Your task to perform on an android device: Do I have any events this weekend? Image 0: 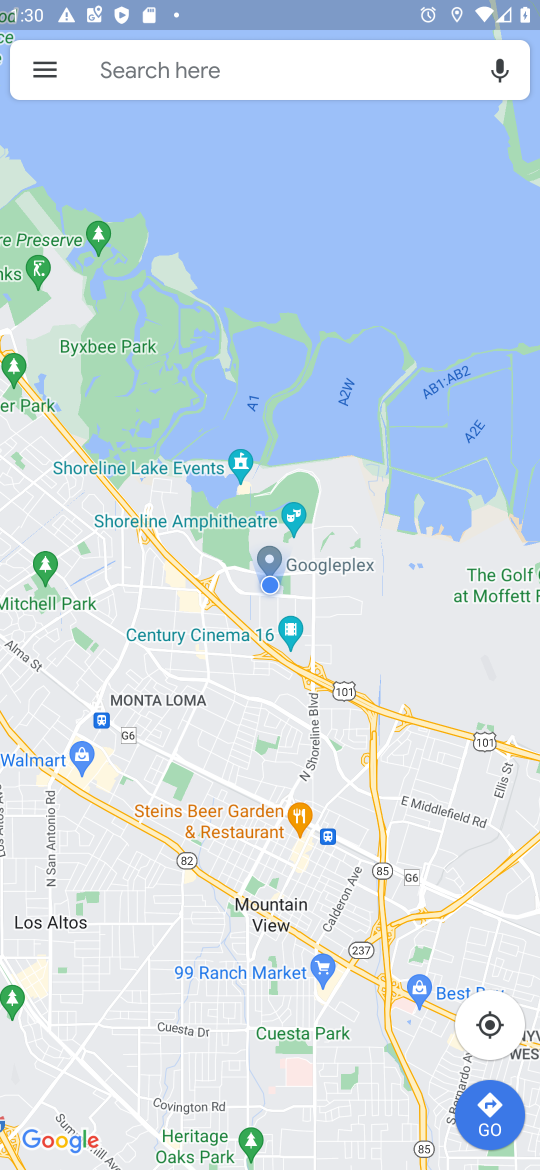
Step 0: press home button
Your task to perform on an android device: Do I have any events this weekend? Image 1: 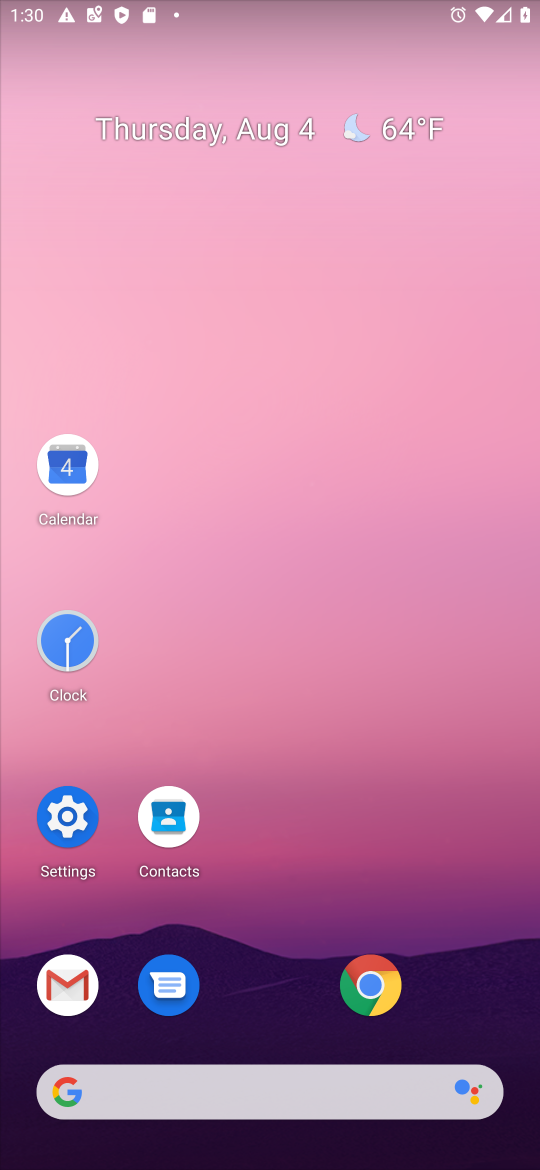
Step 1: drag from (263, 867) to (224, 93)
Your task to perform on an android device: Do I have any events this weekend? Image 2: 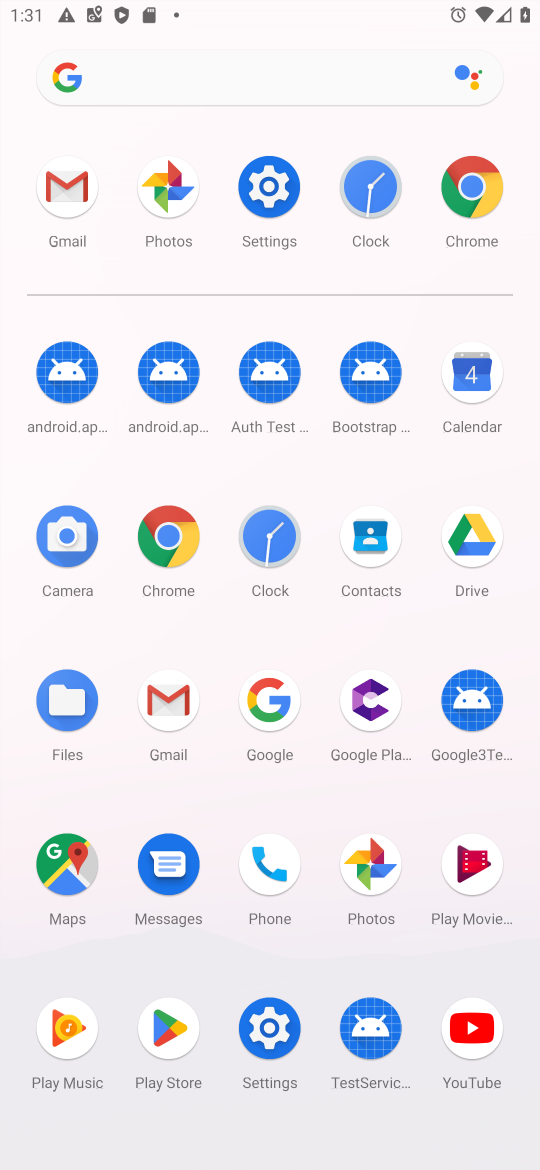
Step 2: click (472, 364)
Your task to perform on an android device: Do I have any events this weekend? Image 3: 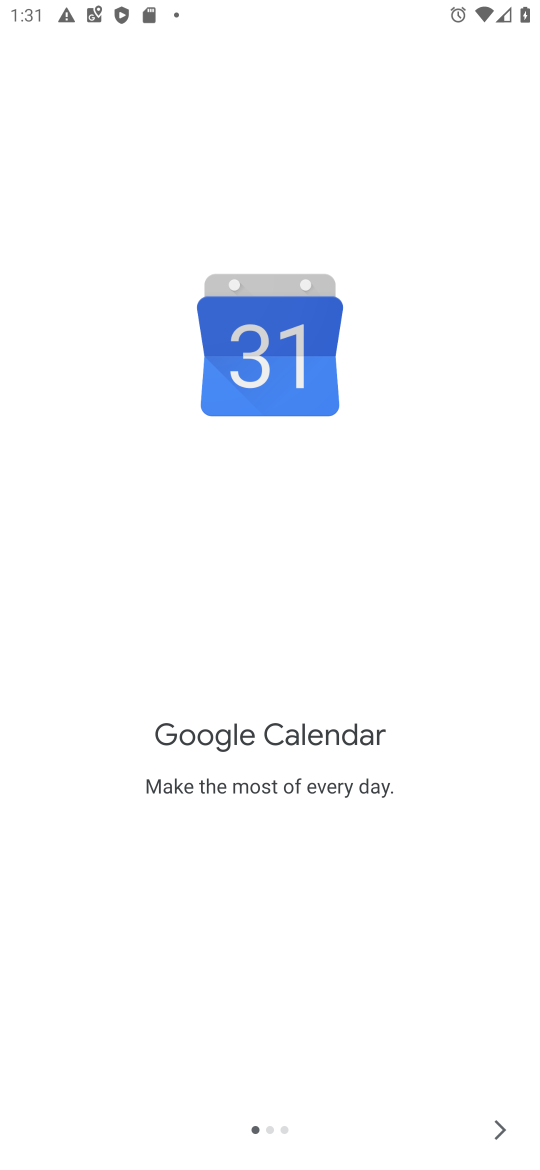
Step 3: click (495, 1134)
Your task to perform on an android device: Do I have any events this weekend? Image 4: 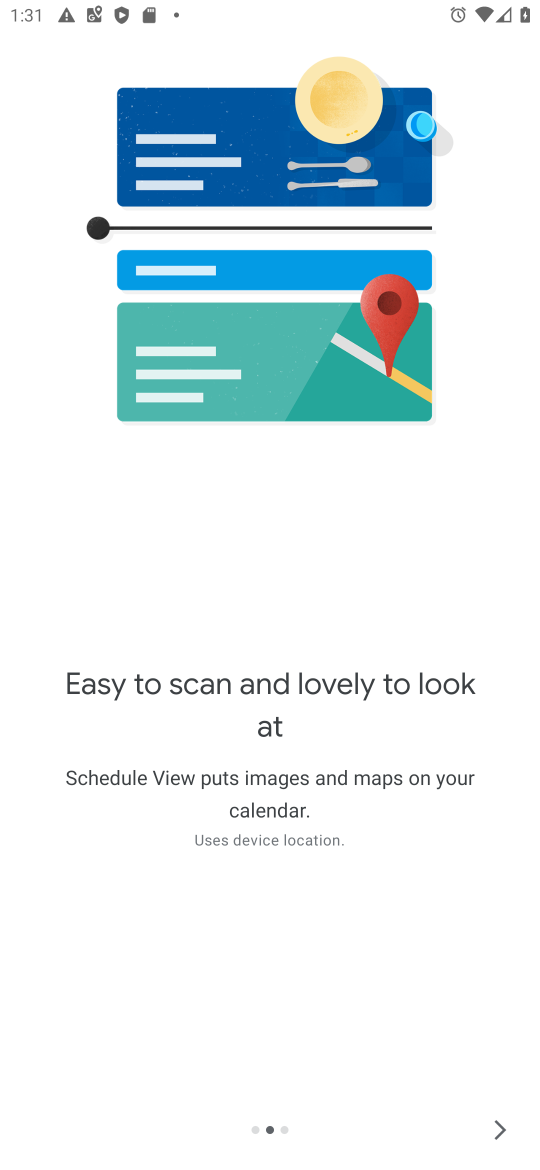
Step 4: click (495, 1134)
Your task to perform on an android device: Do I have any events this weekend? Image 5: 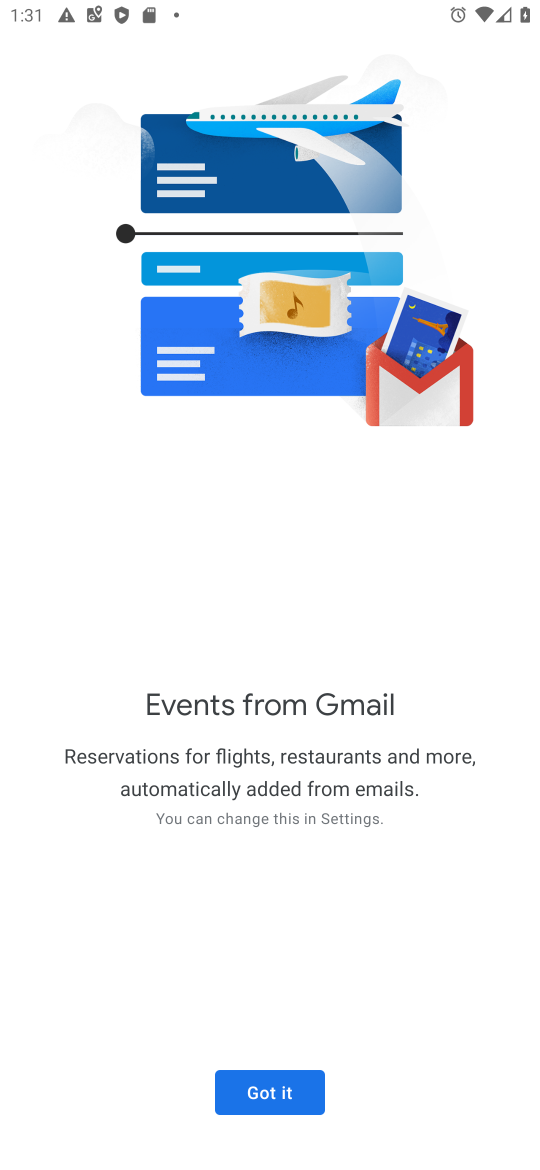
Step 5: click (270, 1095)
Your task to perform on an android device: Do I have any events this weekend? Image 6: 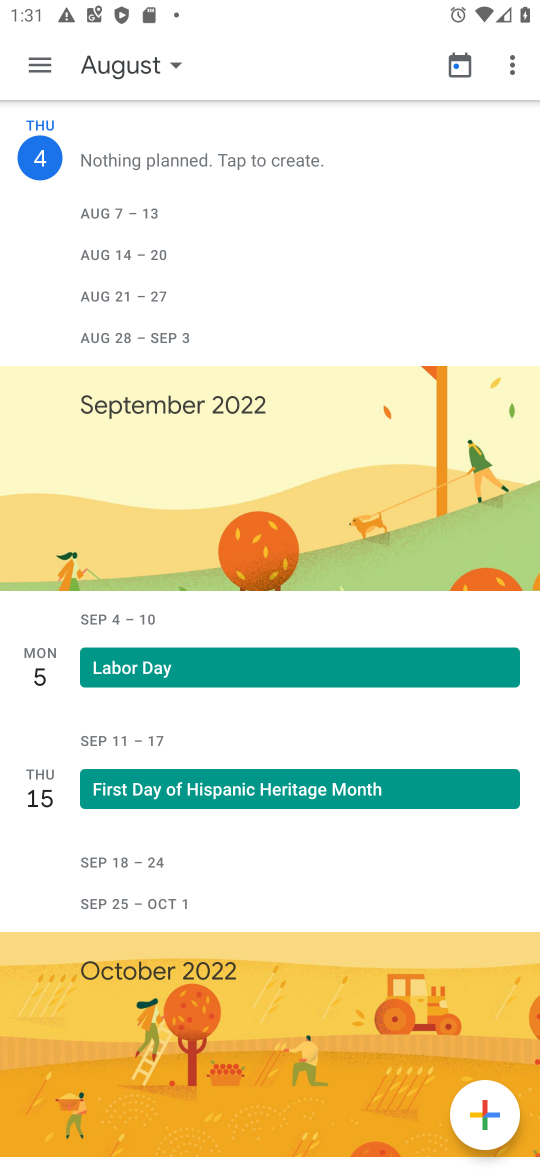
Step 6: click (39, 70)
Your task to perform on an android device: Do I have any events this weekend? Image 7: 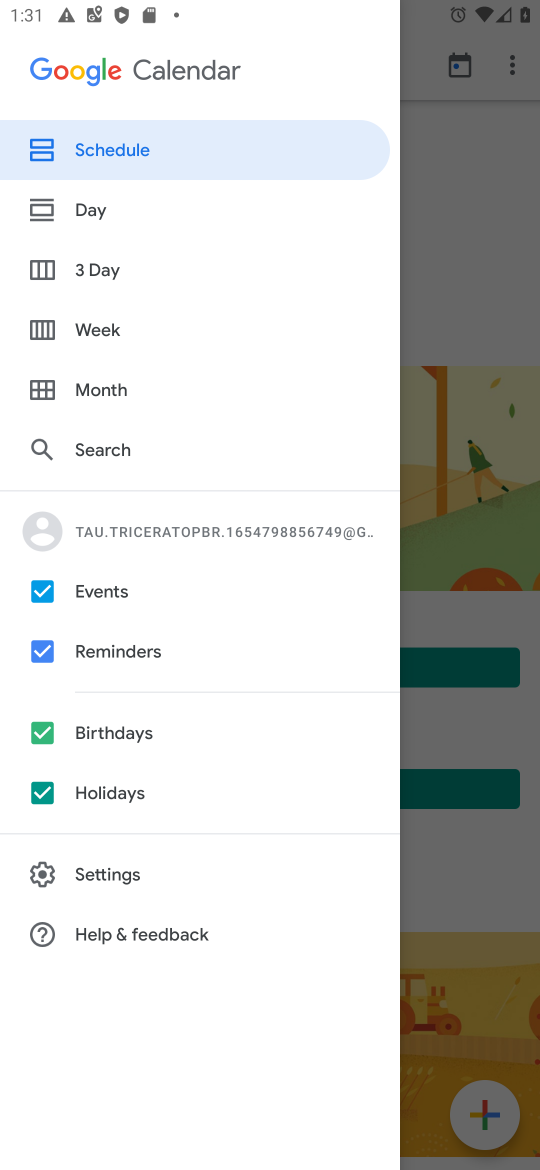
Step 7: click (94, 320)
Your task to perform on an android device: Do I have any events this weekend? Image 8: 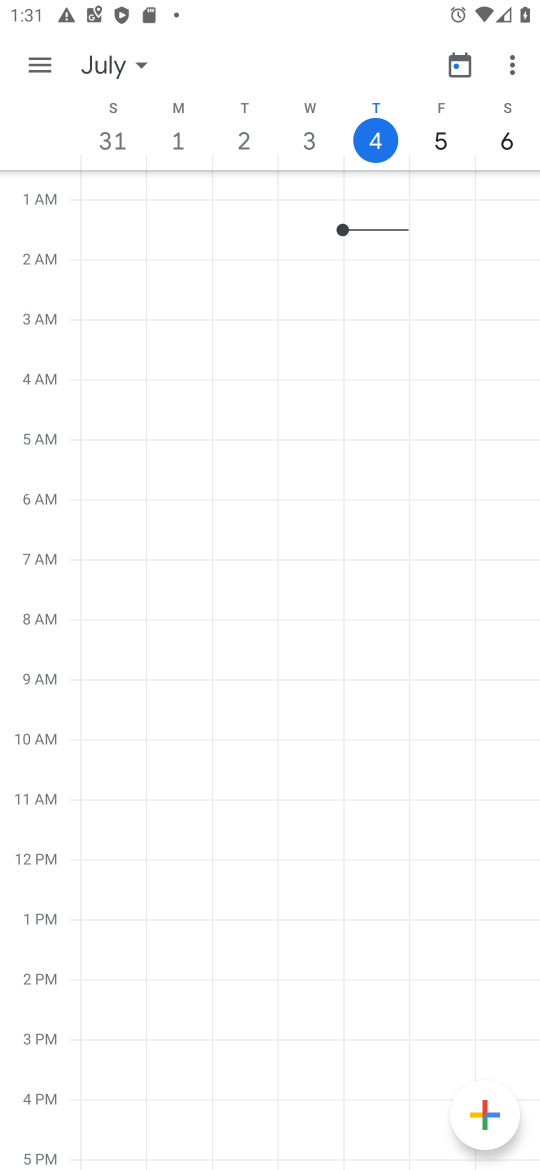
Step 8: task complete